Your task to perform on an android device: Empty the shopping cart on target.com. Search for acer predator on target.com, select the first entry, and add it to the cart. Image 0: 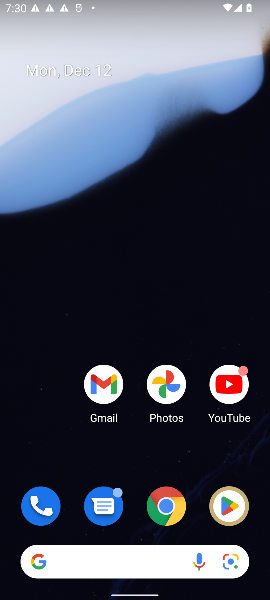
Step 0: click (139, 573)
Your task to perform on an android device: Empty the shopping cart on target.com. Search for acer predator on target.com, select the first entry, and add it to the cart. Image 1: 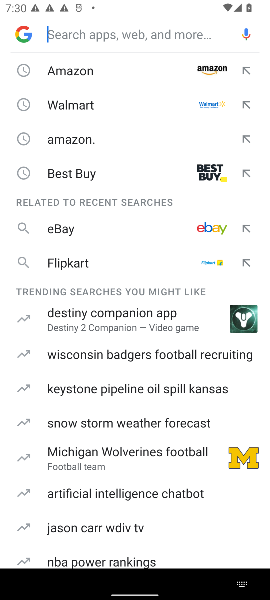
Step 1: type "target"
Your task to perform on an android device: Empty the shopping cart on target.com. Search for acer predator on target.com, select the first entry, and add it to the cart. Image 2: 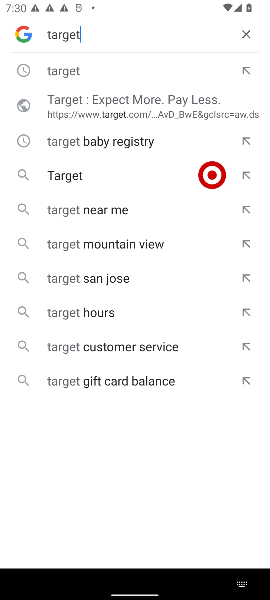
Step 2: click (82, 175)
Your task to perform on an android device: Empty the shopping cart on target.com. Search for acer predator on target.com, select the first entry, and add it to the cart. Image 3: 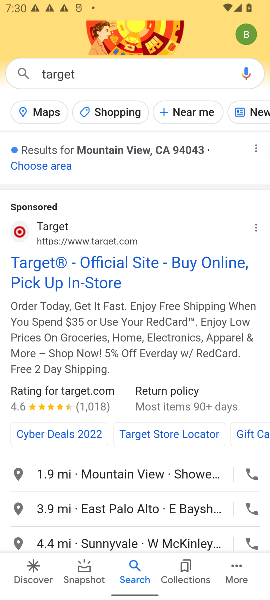
Step 3: click (54, 255)
Your task to perform on an android device: Empty the shopping cart on target.com. Search for acer predator on target.com, select the first entry, and add it to the cart. Image 4: 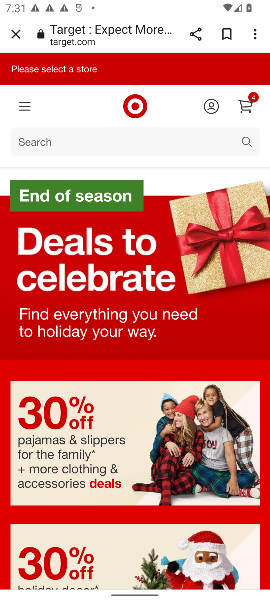
Step 4: click (139, 140)
Your task to perform on an android device: Empty the shopping cart on target.com. Search for acer predator on target.com, select the first entry, and add it to the cart. Image 5: 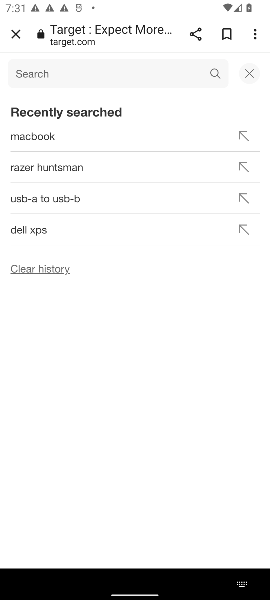
Step 5: type "acer  predator"
Your task to perform on an android device: Empty the shopping cart on target.com. Search for acer predator on target.com, select the first entry, and add it to the cart. Image 6: 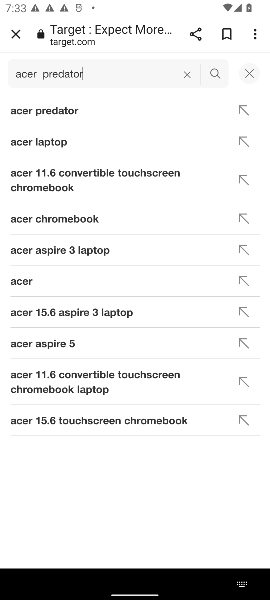
Step 6: click (69, 118)
Your task to perform on an android device: Empty the shopping cart on target.com. Search for acer predator on target.com, select the first entry, and add it to the cart. Image 7: 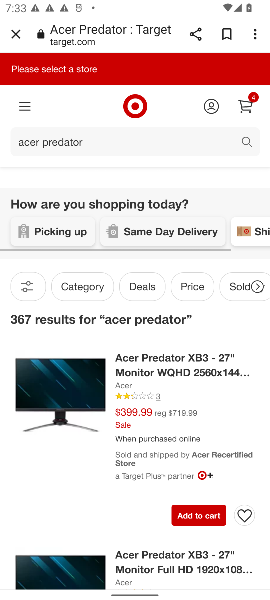
Step 7: click (210, 524)
Your task to perform on an android device: Empty the shopping cart on target.com. Search for acer predator on target.com, select the first entry, and add it to the cart. Image 8: 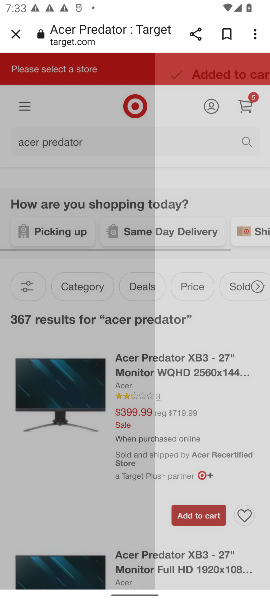
Step 8: task complete